Your task to perform on an android device: change your default location settings in chrome Image 0: 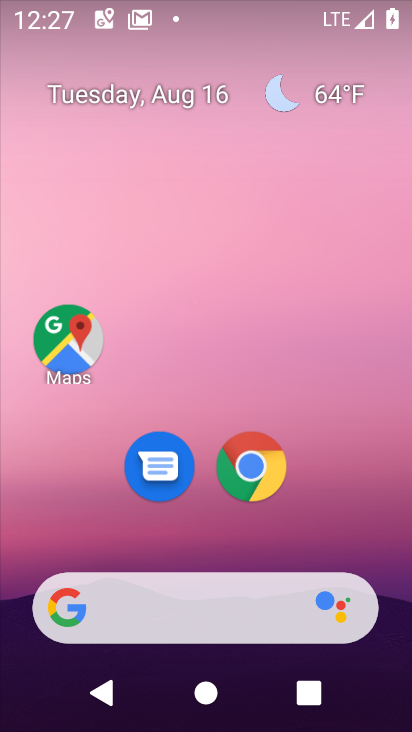
Step 0: drag from (162, 507) to (174, 344)
Your task to perform on an android device: change your default location settings in chrome Image 1: 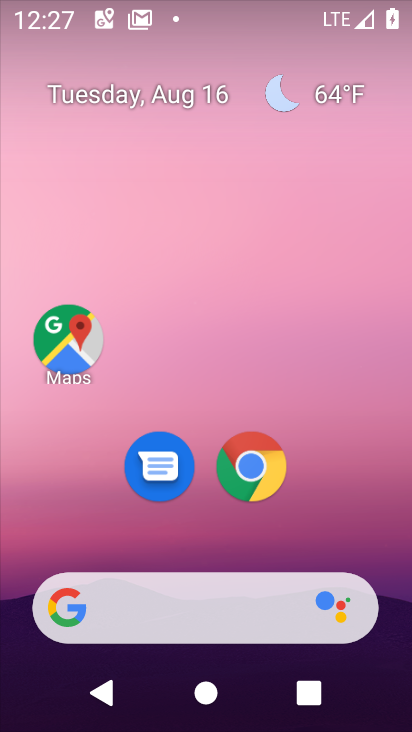
Step 1: drag from (216, 600) to (213, 111)
Your task to perform on an android device: change your default location settings in chrome Image 2: 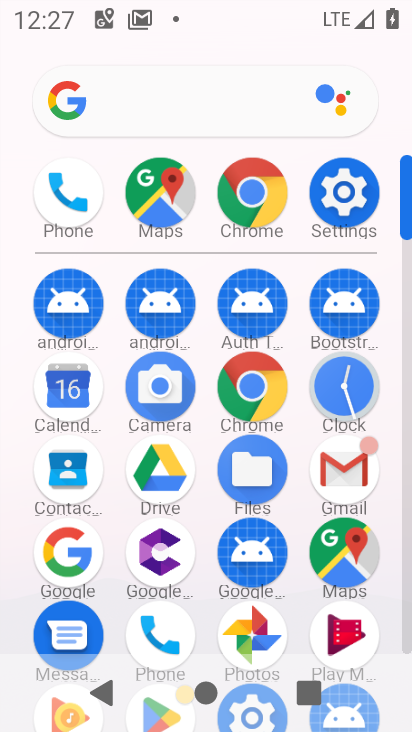
Step 2: click (264, 382)
Your task to perform on an android device: change your default location settings in chrome Image 3: 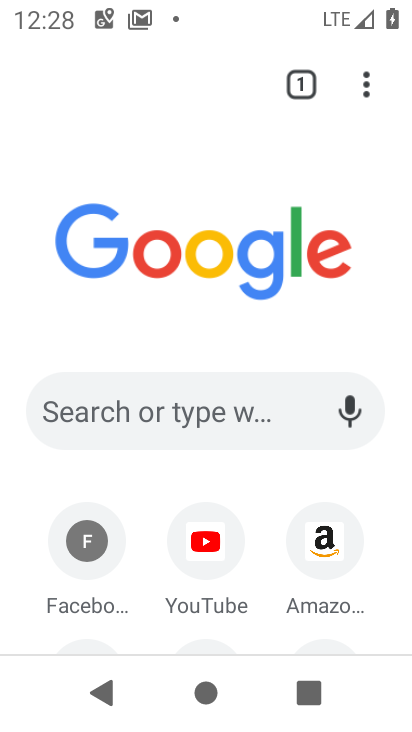
Step 3: click (374, 77)
Your task to perform on an android device: change your default location settings in chrome Image 4: 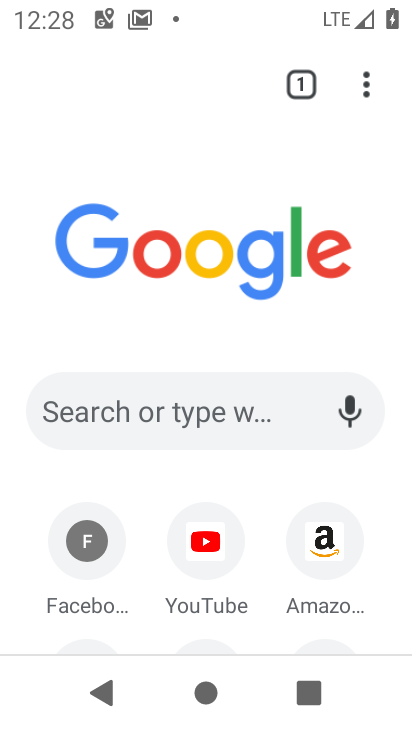
Step 4: click (367, 77)
Your task to perform on an android device: change your default location settings in chrome Image 5: 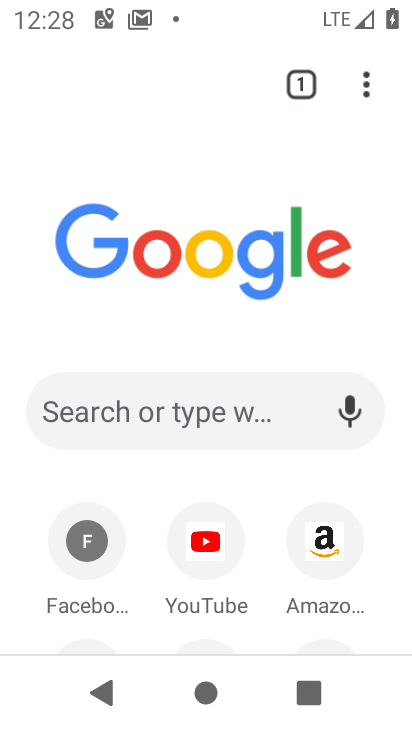
Step 5: click (367, 77)
Your task to perform on an android device: change your default location settings in chrome Image 6: 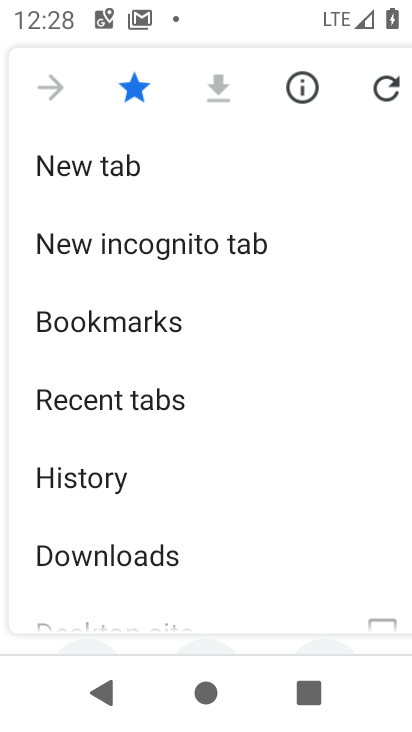
Step 6: drag from (167, 598) to (213, 270)
Your task to perform on an android device: change your default location settings in chrome Image 7: 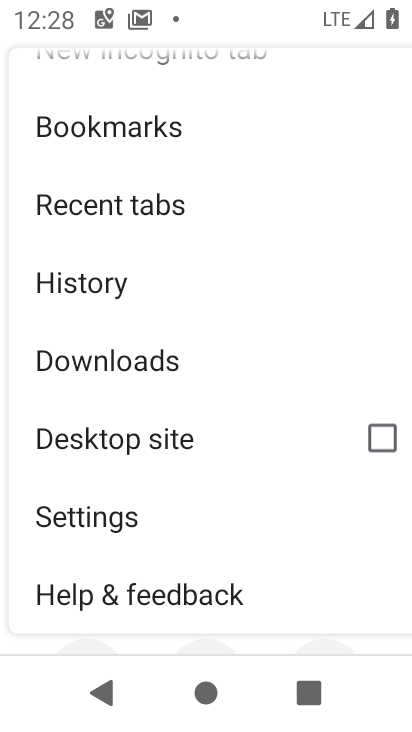
Step 7: click (124, 506)
Your task to perform on an android device: change your default location settings in chrome Image 8: 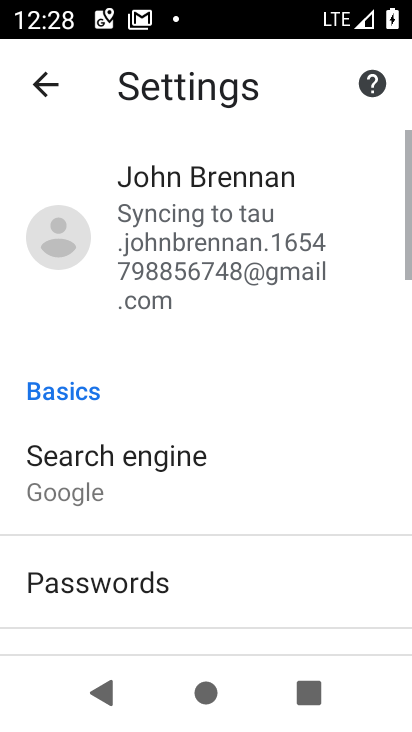
Step 8: click (202, 574)
Your task to perform on an android device: change your default location settings in chrome Image 9: 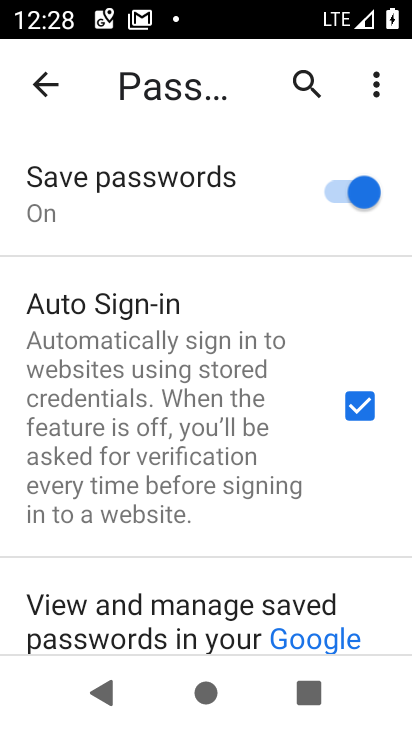
Step 9: click (39, 101)
Your task to perform on an android device: change your default location settings in chrome Image 10: 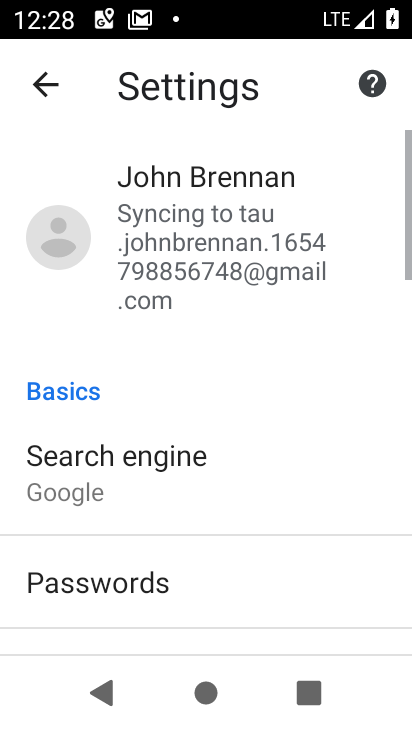
Step 10: drag from (201, 616) to (243, 172)
Your task to perform on an android device: change your default location settings in chrome Image 11: 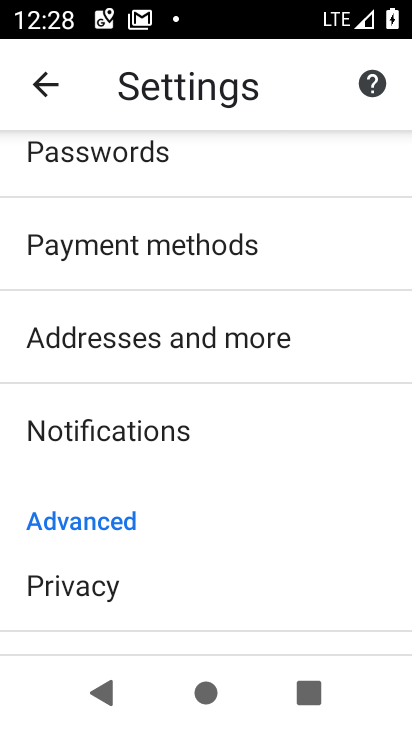
Step 11: drag from (153, 604) to (202, 355)
Your task to perform on an android device: change your default location settings in chrome Image 12: 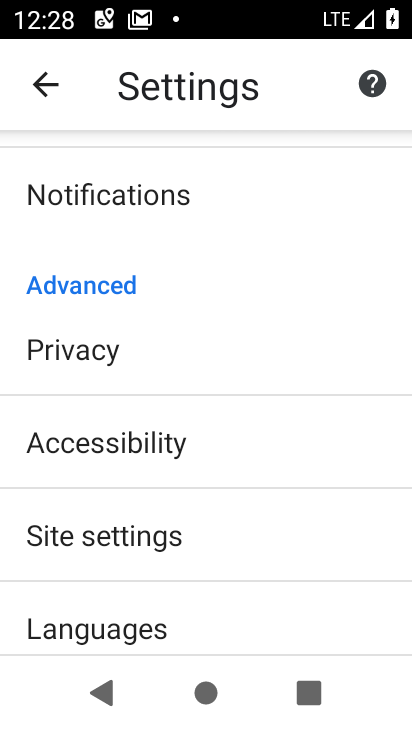
Step 12: click (141, 519)
Your task to perform on an android device: change your default location settings in chrome Image 13: 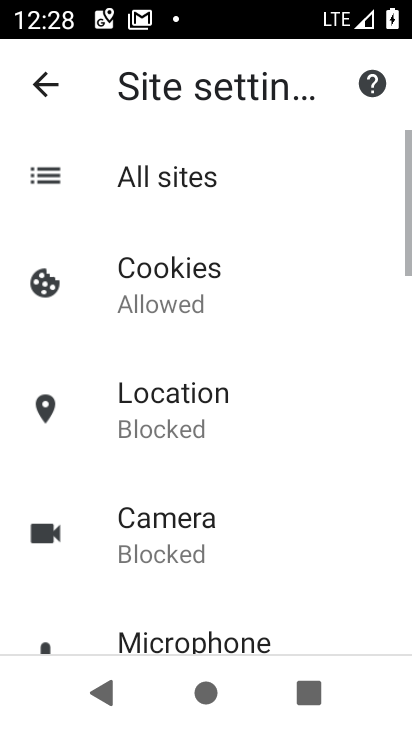
Step 13: click (190, 386)
Your task to perform on an android device: change your default location settings in chrome Image 14: 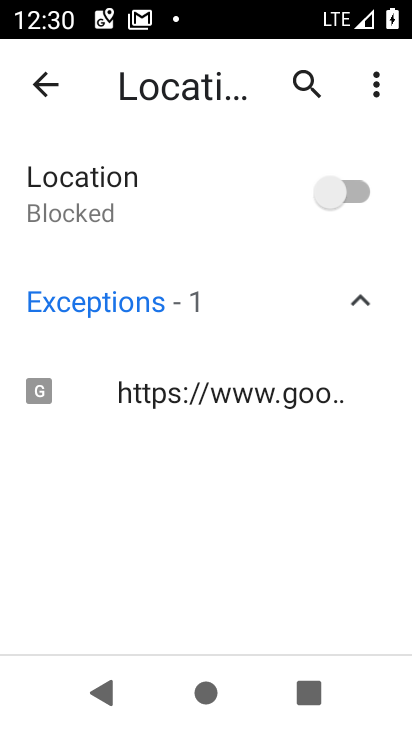
Step 14: task complete